Your task to perform on an android device: toggle translation in the chrome app Image 0: 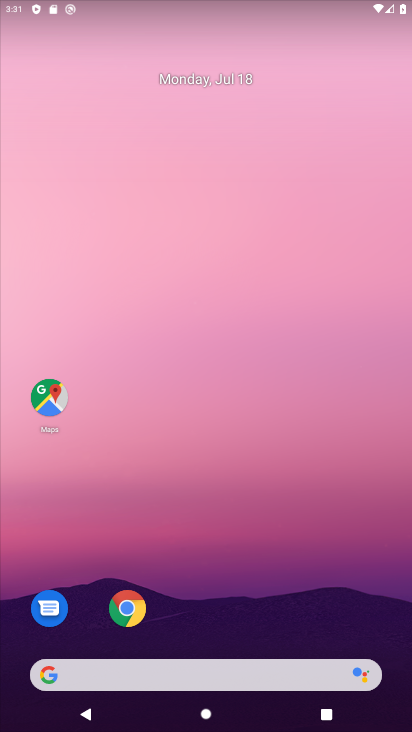
Step 0: drag from (240, 490) to (219, 181)
Your task to perform on an android device: toggle translation in the chrome app Image 1: 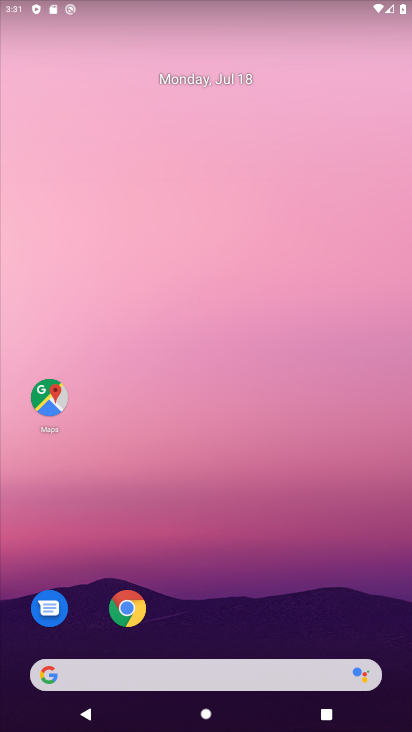
Step 1: drag from (218, 483) to (231, 176)
Your task to perform on an android device: toggle translation in the chrome app Image 2: 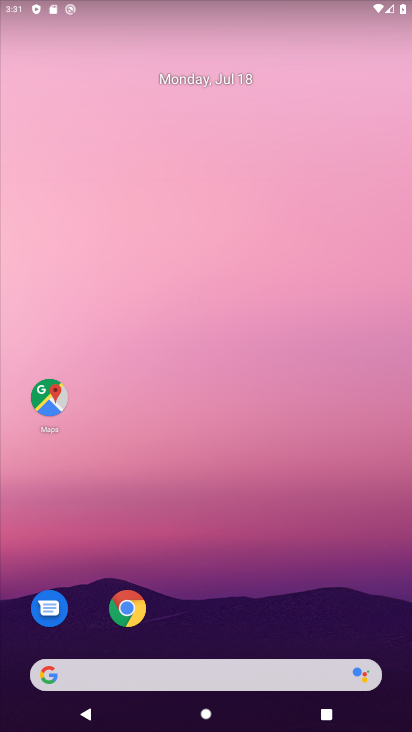
Step 2: drag from (212, 523) to (214, 156)
Your task to perform on an android device: toggle translation in the chrome app Image 3: 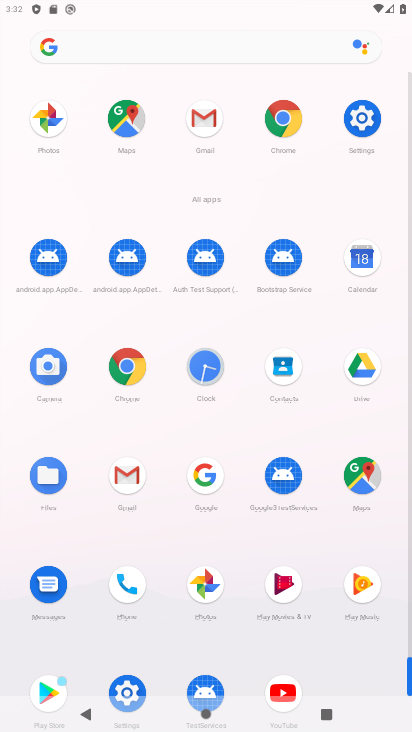
Step 3: click (134, 360)
Your task to perform on an android device: toggle translation in the chrome app Image 4: 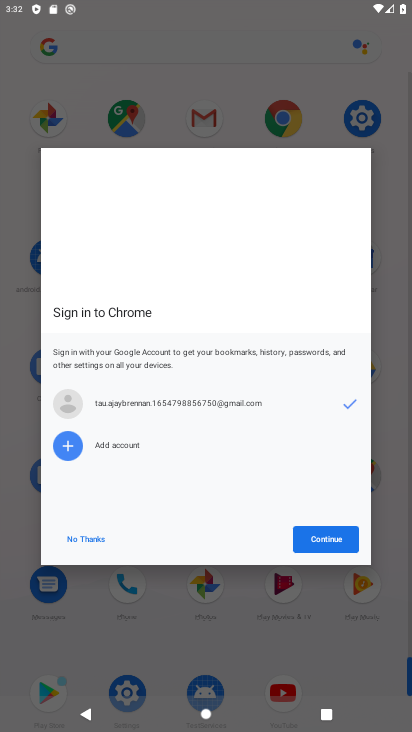
Step 4: click (91, 534)
Your task to perform on an android device: toggle translation in the chrome app Image 5: 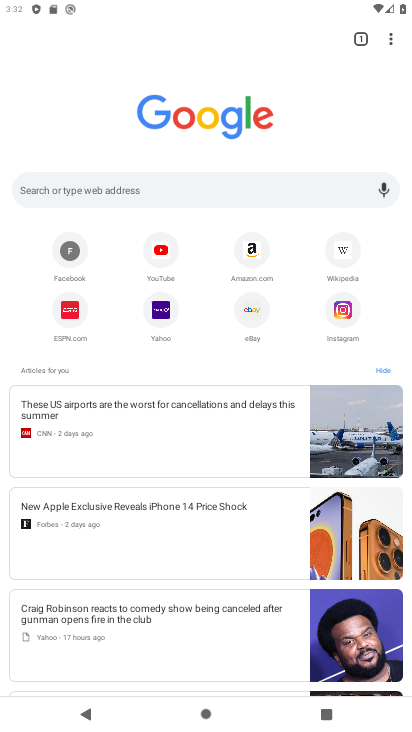
Step 5: click (389, 37)
Your task to perform on an android device: toggle translation in the chrome app Image 6: 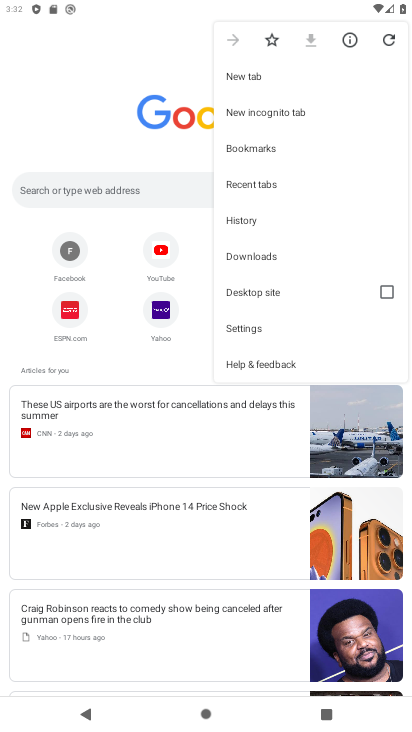
Step 6: click (258, 329)
Your task to perform on an android device: toggle translation in the chrome app Image 7: 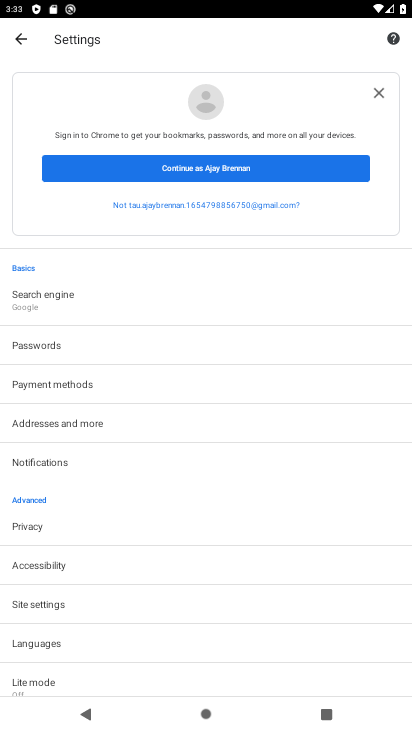
Step 7: task complete